Your task to perform on an android device: Go to Yahoo.com Image 0: 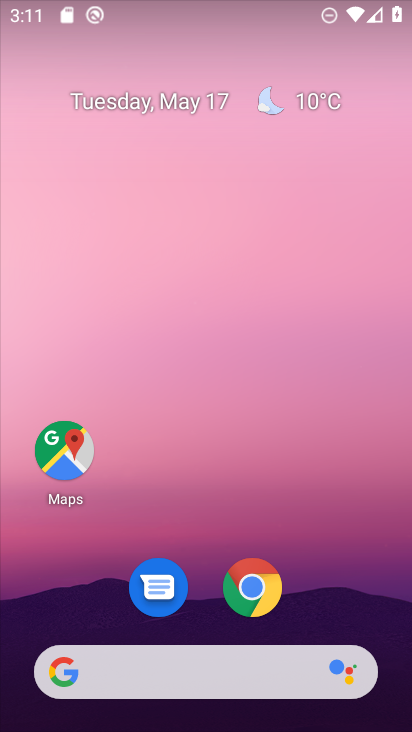
Step 0: drag from (329, 559) to (265, 0)
Your task to perform on an android device: Go to Yahoo.com Image 1: 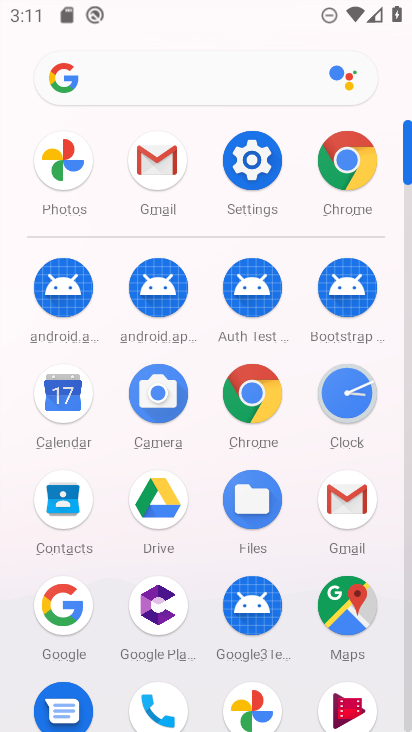
Step 1: drag from (12, 575) to (22, 211)
Your task to perform on an android device: Go to Yahoo.com Image 2: 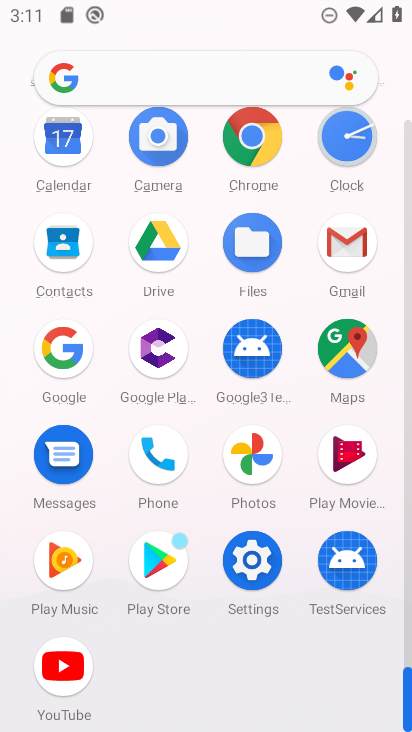
Step 2: click (250, 135)
Your task to perform on an android device: Go to Yahoo.com Image 3: 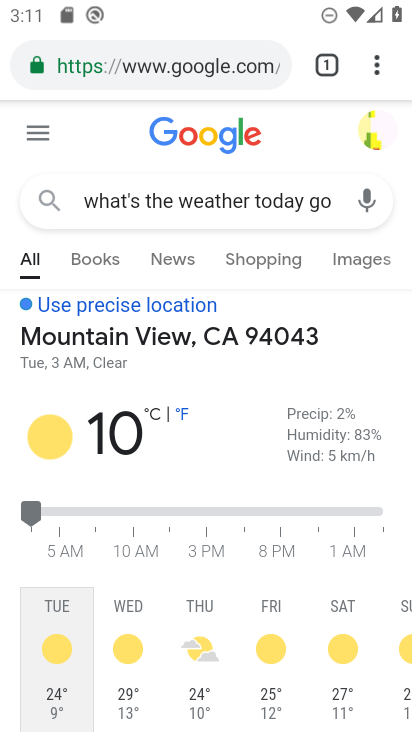
Step 3: click (178, 72)
Your task to perform on an android device: Go to Yahoo.com Image 4: 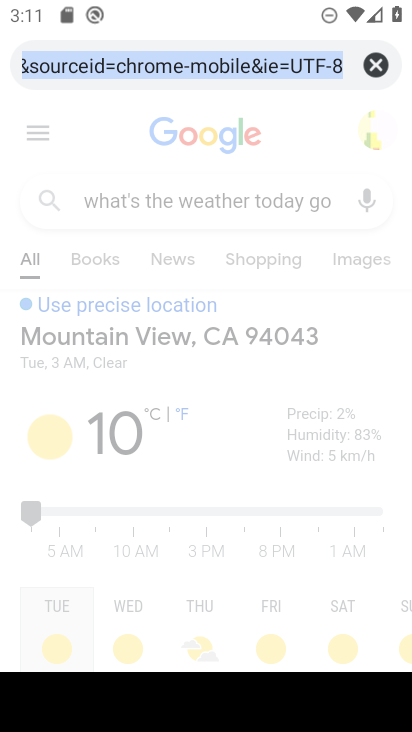
Step 4: click (380, 65)
Your task to perform on an android device: Go to Yahoo.com Image 5: 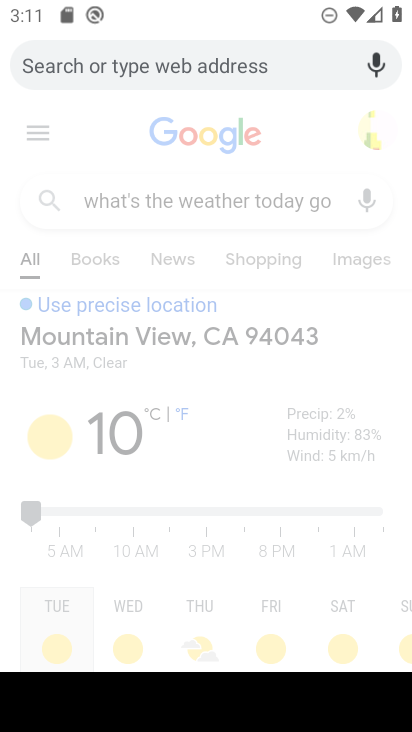
Step 5: type "Yahoo.com"
Your task to perform on an android device: Go to Yahoo.com Image 6: 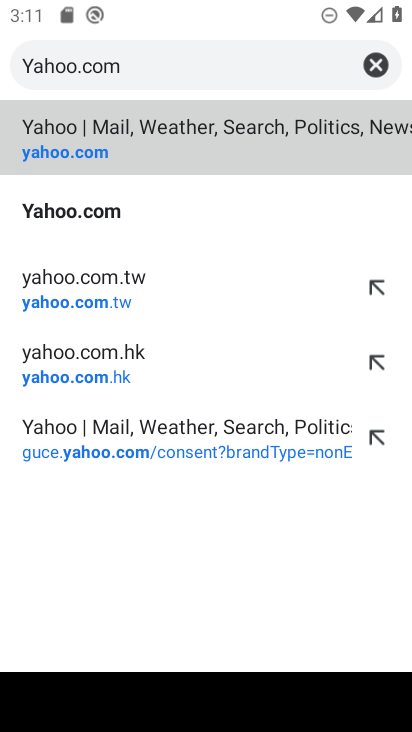
Step 6: click (190, 161)
Your task to perform on an android device: Go to Yahoo.com Image 7: 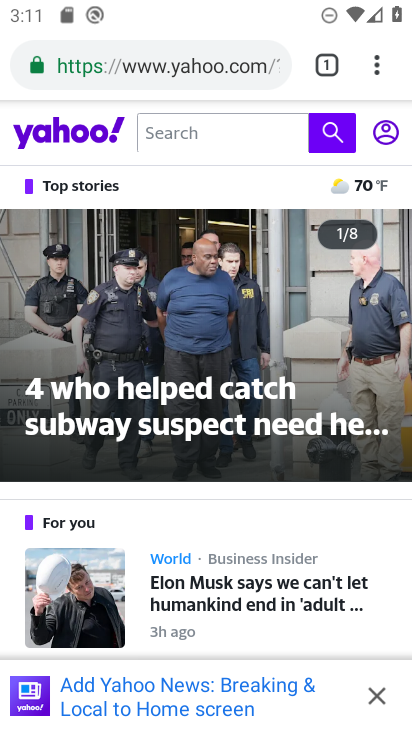
Step 7: task complete